Your task to perform on an android device: Search for vegetarian restaurants on Maps Image 0: 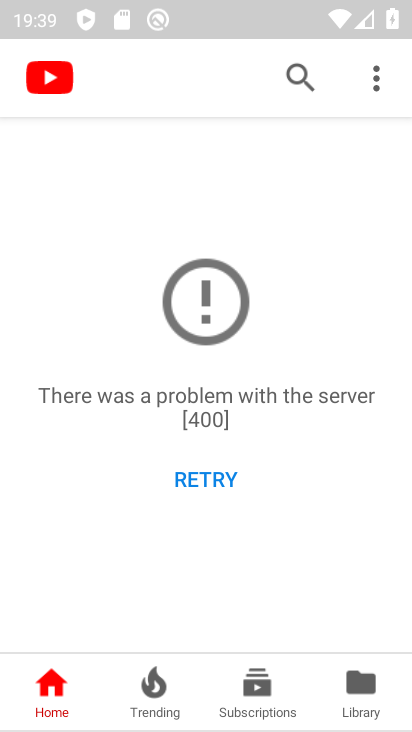
Step 0: press home button
Your task to perform on an android device: Search for vegetarian restaurants on Maps Image 1: 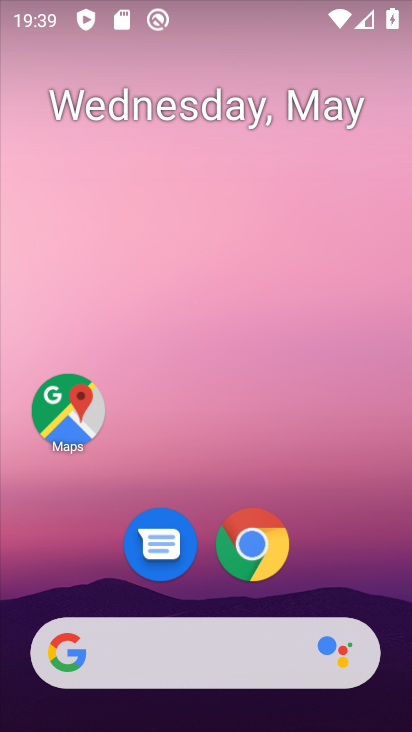
Step 1: click (81, 409)
Your task to perform on an android device: Search for vegetarian restaurants on Maps Image 2: 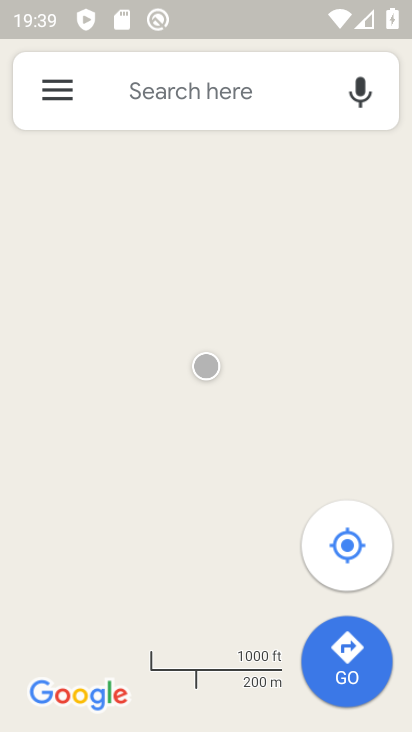
Step 2: click (205, 74)
Your task to perform on an android device: Search for vegetarian restaurants on Maps Image 3: 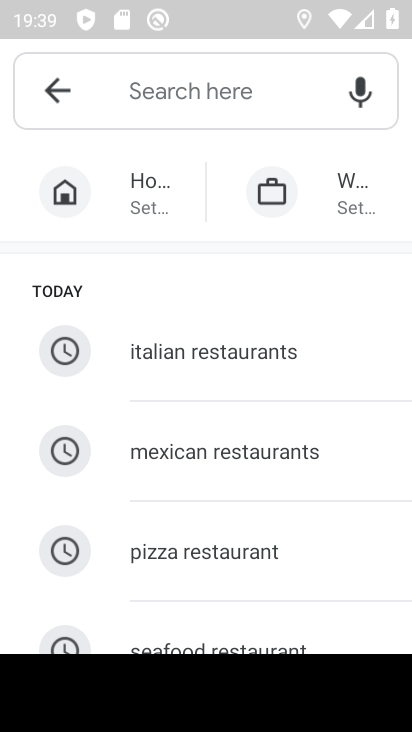
Step 3: type "vegetarian restaurant"
Your task to perform on an android device: Search for vegetarian restaurants on Maps Image 4: 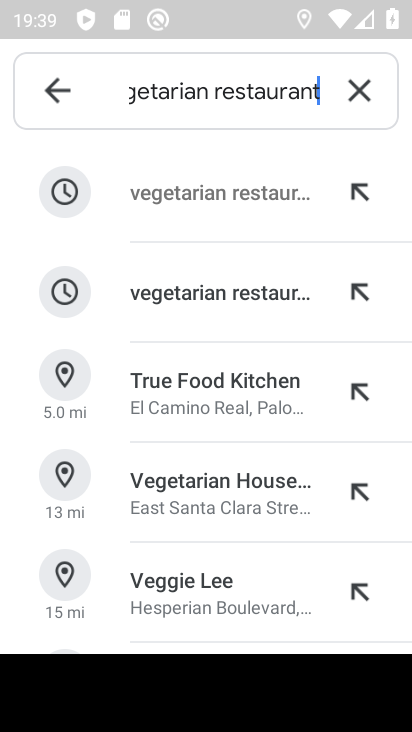
Step 4: click (59, 177)
Your task to perform on an android device: Search for vegetarian restaurants on Maps Image 5: 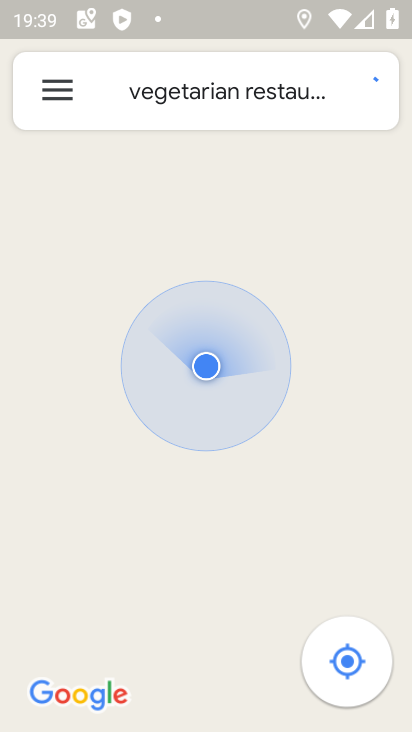
Step 5: click (59, 177)
Your task to perform on an android device: Search for vegetarian restaurants on Maps Image 6: 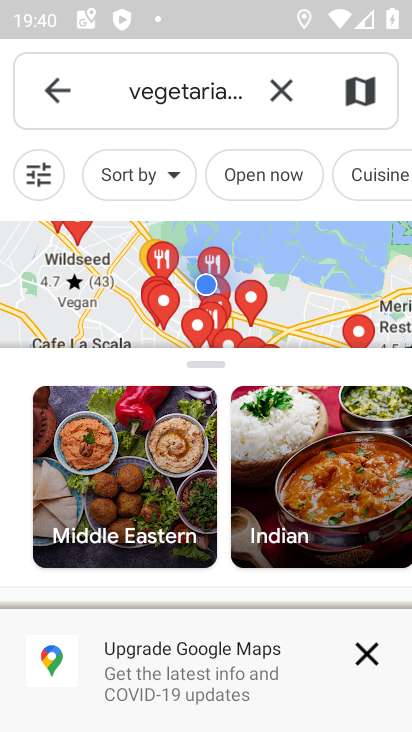
Step 6: task complete